Your task to perform on an android device: Search for pizza restaurants on Maps Image 0: 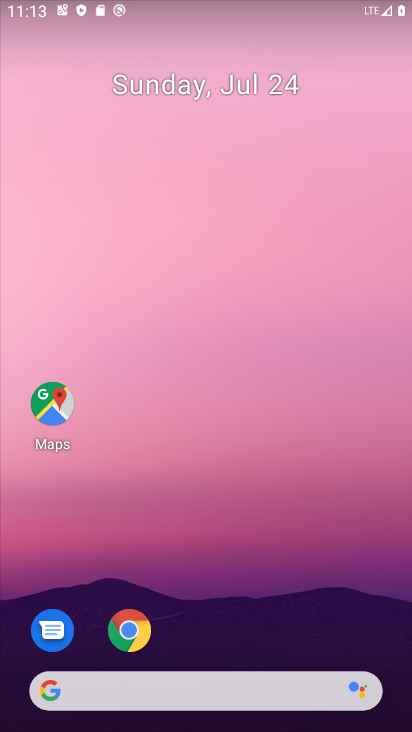
Step 0: click (53, 433)
Your task to perform on an android device: Search for pizza restaurants on Maps Image 1: 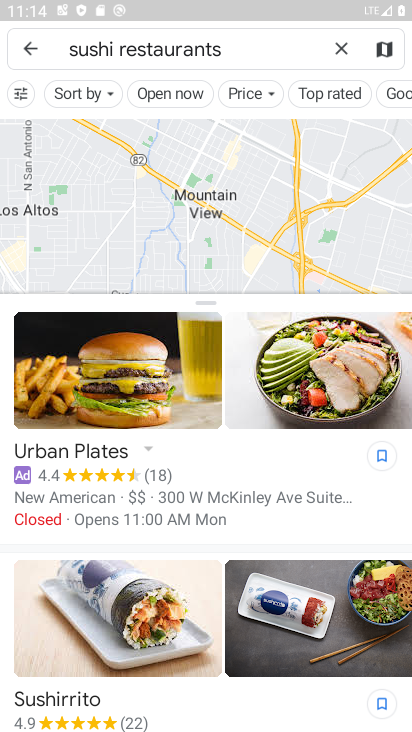
Step 1: click (340, 51)
Your task to perform on an android device: Search for pizza restaurants on Maps Image 2: 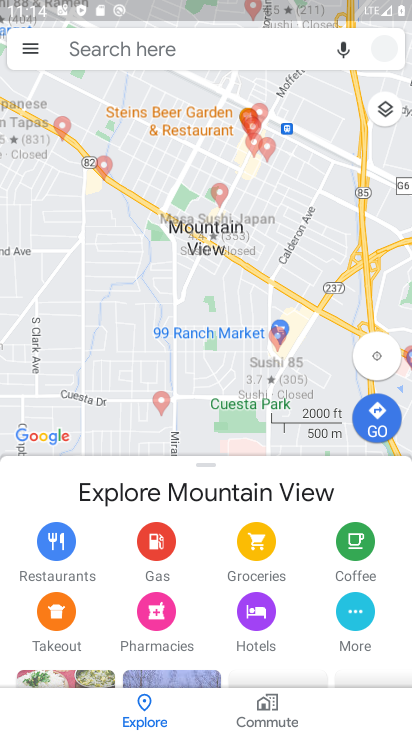
Step 2: click (179, 57)
Your task to perform on an android device: Search for pizza restaurants on Maps Image 3: 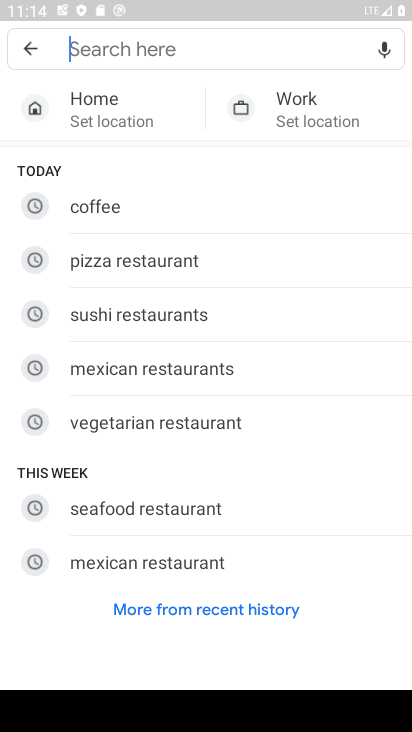
Step 3: click (176, 267)
Your task to perform on an android device: Search for pizza restaurants on Maps Image 4: 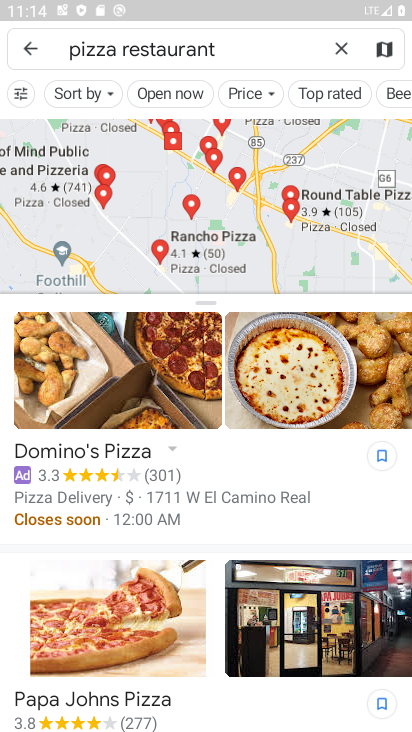
Step 4: task complete